Your task to perform on an android device: Open the web browser Image 0: 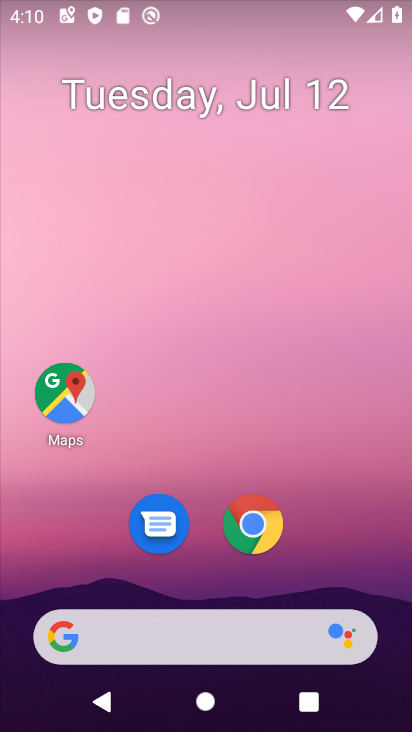
Step 0: click (255, 525)
Your task to perform on an android device: Open the web browser Image 1: 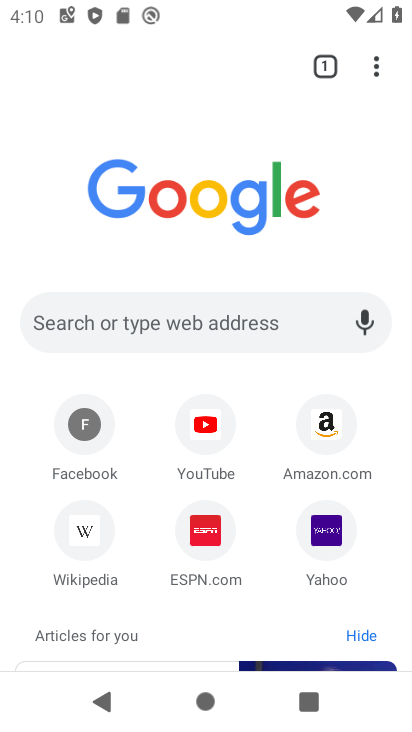
Step 1: task complete